Your task to perform on an android device: What's the weather going to be tomorrow? Image 0: 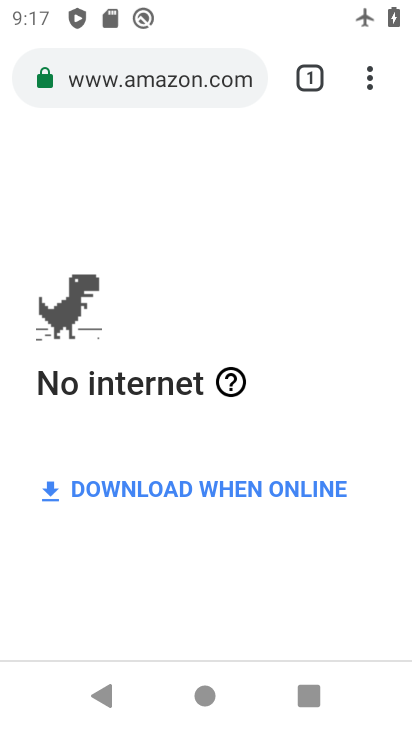
Step 0: press home button
Your task to perform on an android device: What's the weather going to be tomorrow? Image 1: 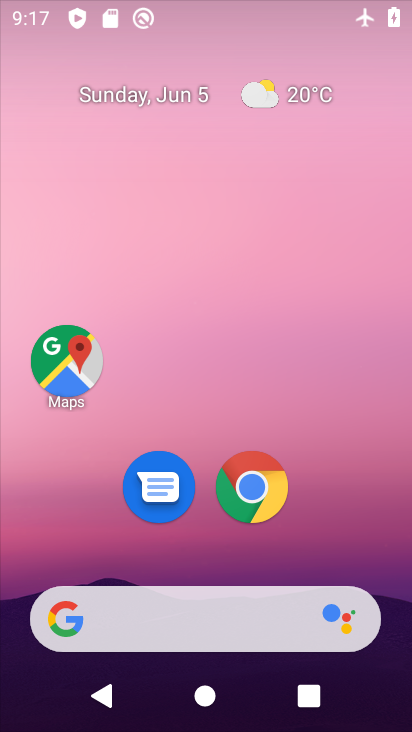
Step 1: drag from (192, 567) to (193, 152)
Your task to perform on an android device: What's the weather going to be tomorrow? Image 2: 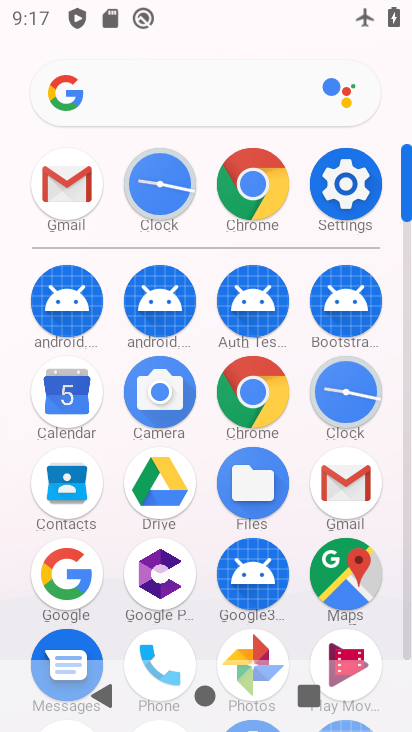
Step 2: click (72, 582)
Your task to perform on an android device: What's the weather going to be tomorrow? Image 3: 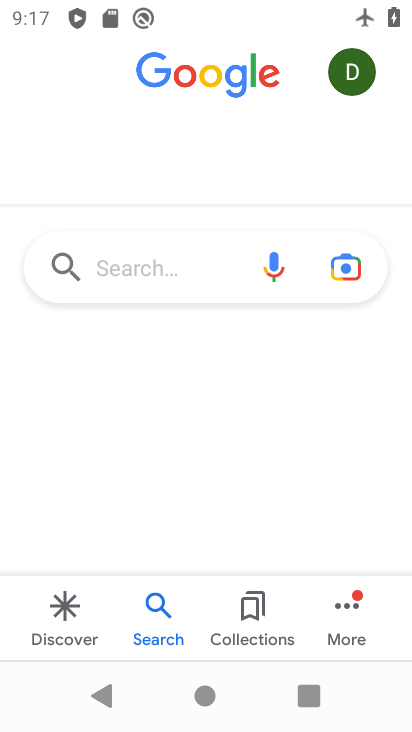
Step 3: click (124, 257)
Your task to perform on an android device: What's the weather going to be tomorrow? Image 4: 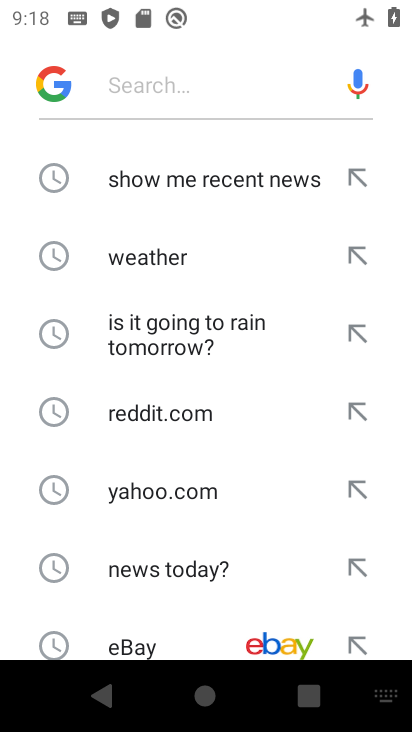
Step 4: click (173, 264)
Your task to perform on an android device: What's the weather going to be tomorrow? Image 5: 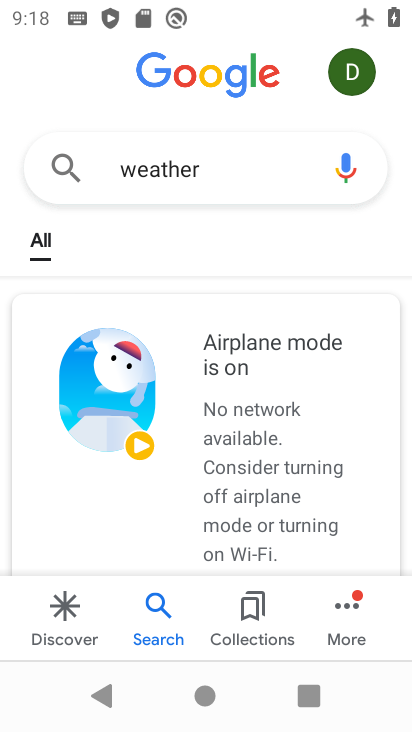
Step 5: task complete